Your task to perform on an android device: turn on airplane mode Image 0: 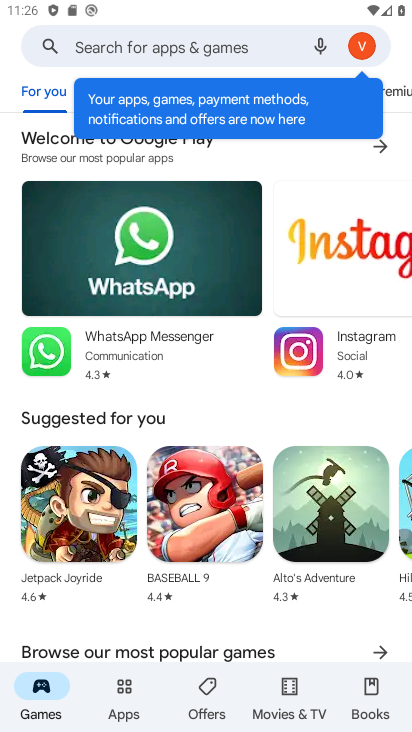
Step 0: press home button
Your task to perform on an android device: turn on airplane mode Image 1: 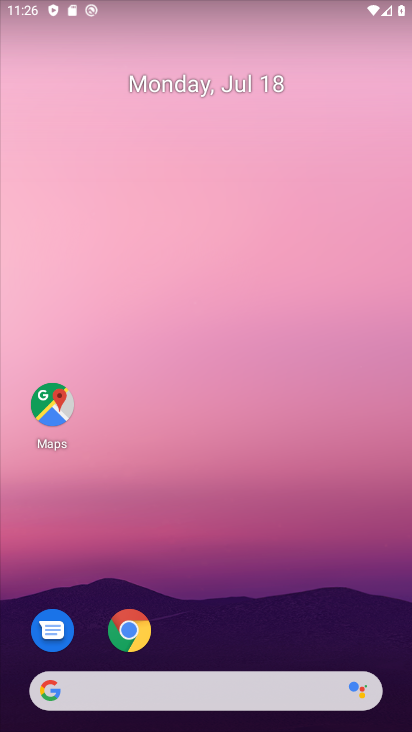
Step 1: drag from (202, 603) to (269, 5)
Your task to perform on an android device: turn on airplane mode Image 2: 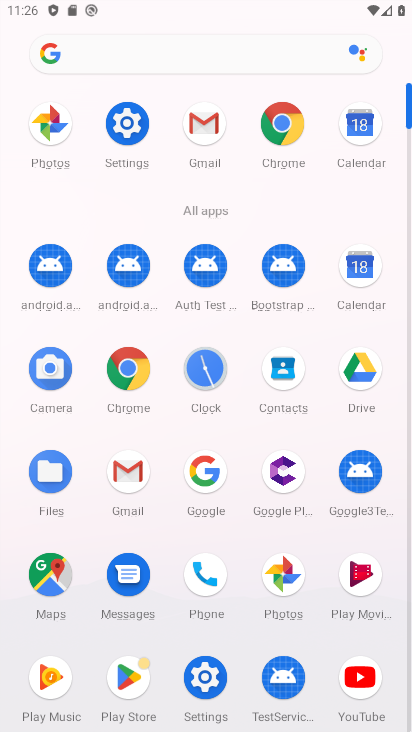
Step 2: click (132, 135)
Your task to perform on an android device: turn on airplane mode Image 3: 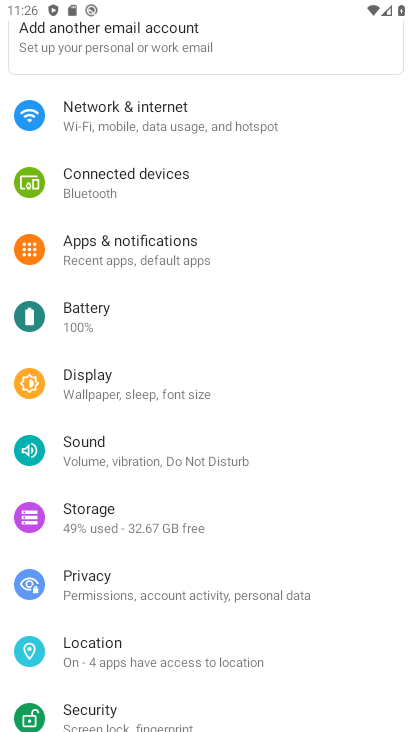
Step 3: click (177, 122)
Your task to perform on an android device: turn on airplane mode Image 4: 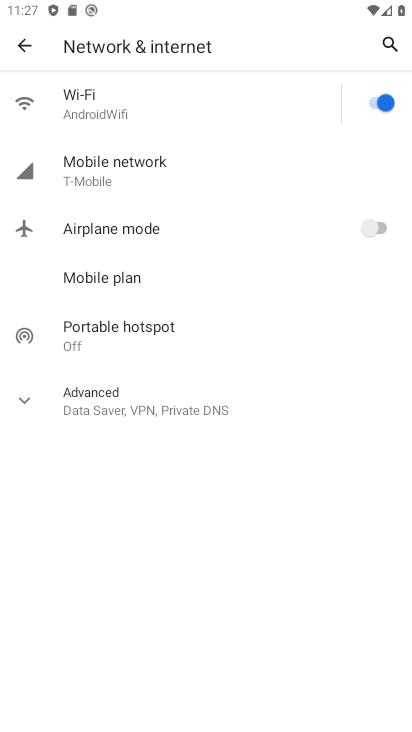
Step 4: click (394, 228)
Your task to perform on an android device: turn on airplane mode Image 5: 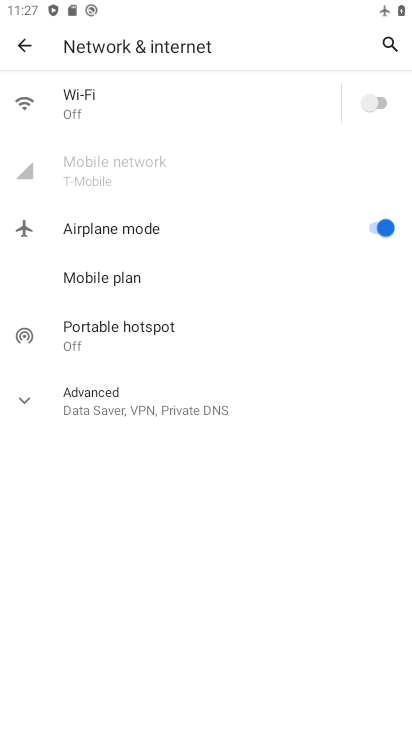
Step 5: task complete